Your task to perform on an android device: delete the emails in spam in the gmail app Image 0: 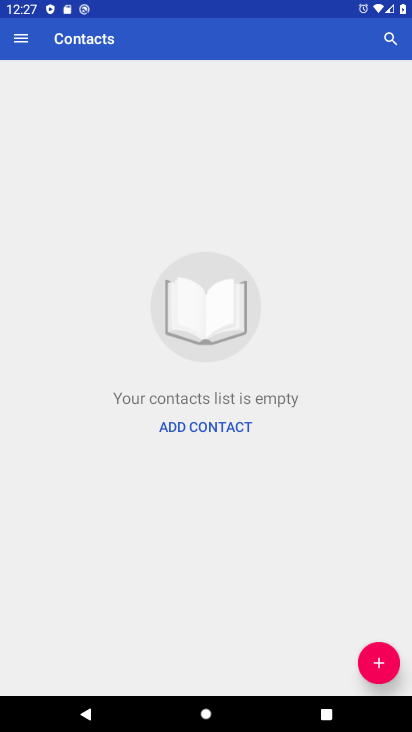
Step 0: press back button
Your task to perform on an android device: delete the emails in spam in the gmail app Image 1: 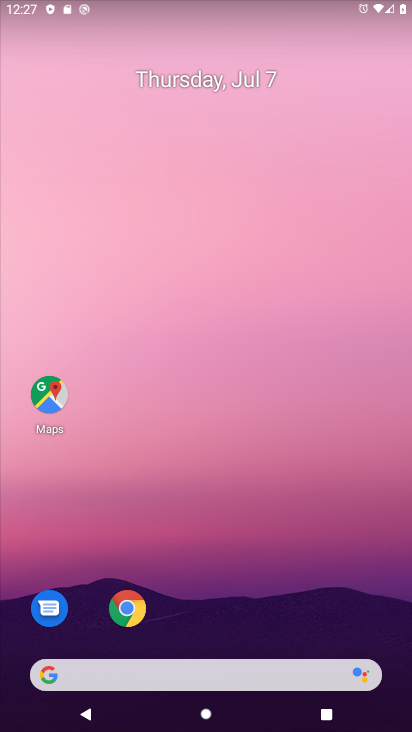
Step 1: drag from (233, 539) to (237, 8)
Your task to perform on an android device: delete the emails in spam in the gmail app Image 2: 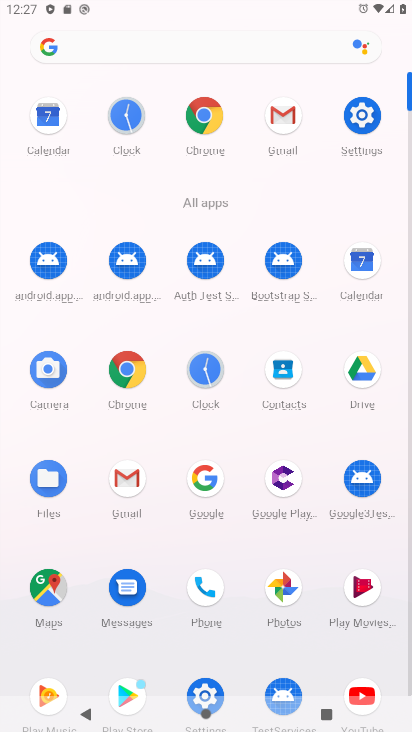
Step 2: click (282, 98)
Your task to perform on an android device: delete the emails in spam in the gmail app Image 3: 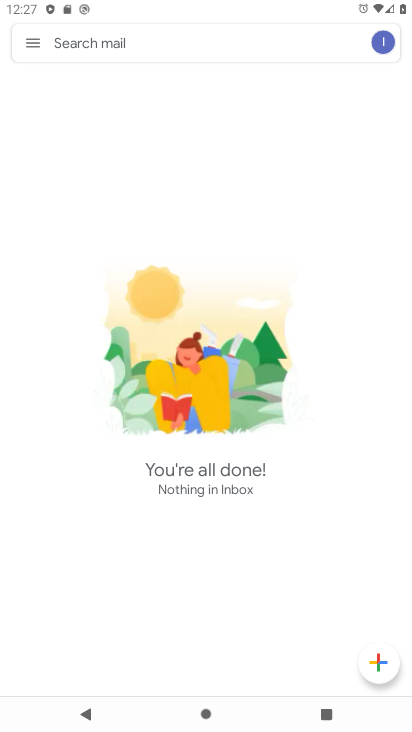
Step 3: click (30, 36)
Your task to perform on an android device: delete the emails in spam in the gmail app Image 4: 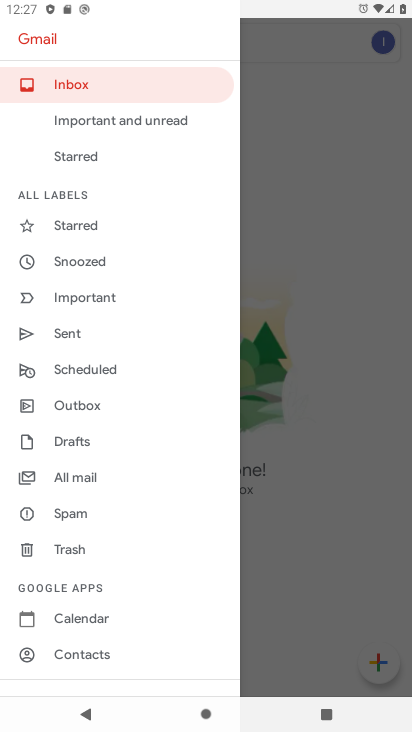
Step 4: click (71, 509)
Your task to perform on an android device: delete the emails in spam in the gmail app Image 5: 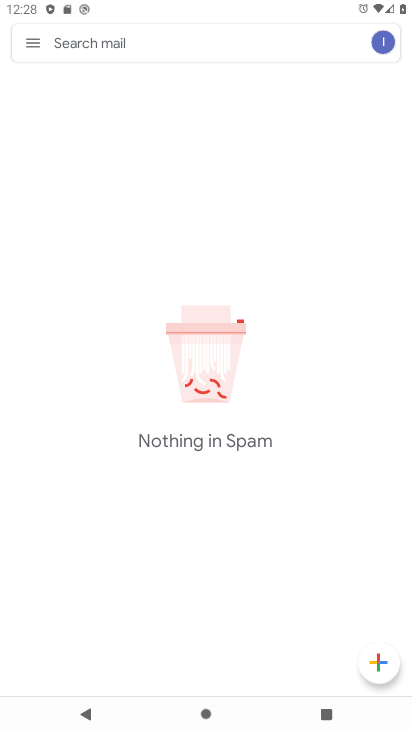
Step 5: task complete